Your task to perform on an android device: turn notification dots on Image 0: 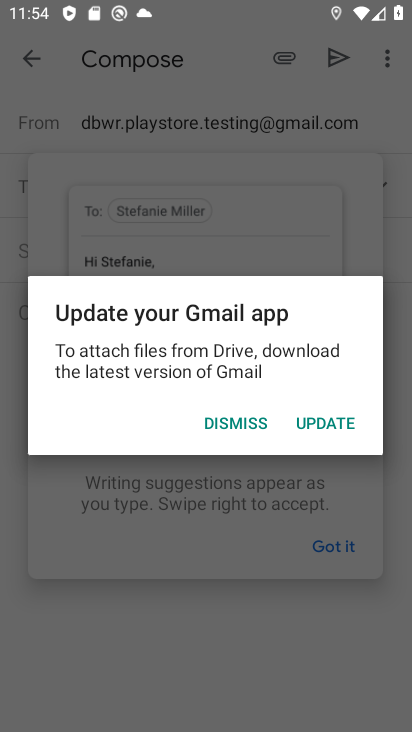
Step 0: press home button
Your task to perform on an android device: turn notification dots on Image 1: 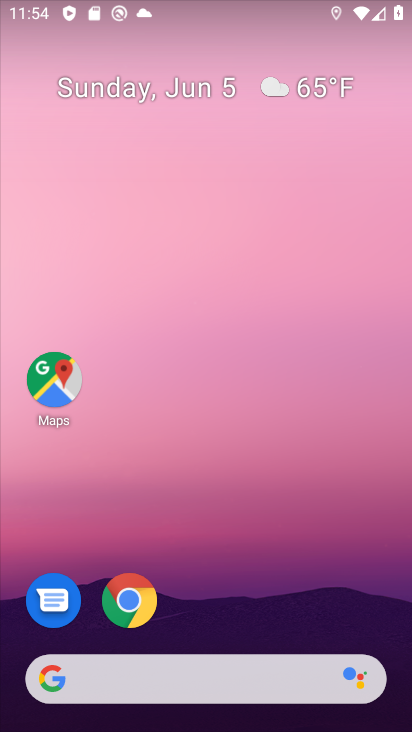
Step 1: drag from (386, 610) to (305, 104)
Your task to perform on an android device: turn notification dots on Image 2: 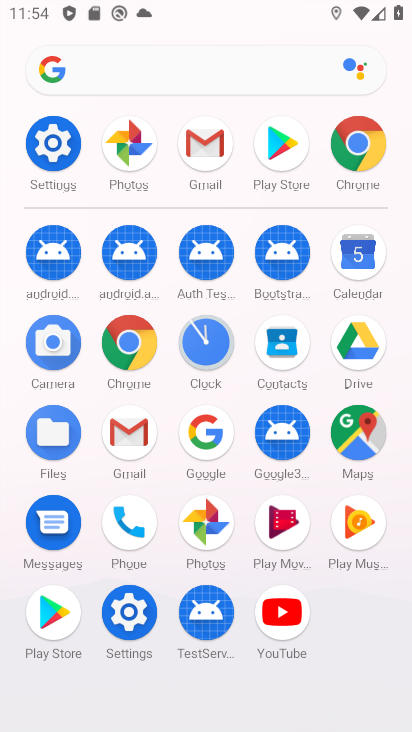
Step 2: click (43, 131)
Your task to perform on an android device: turn notification dots on Image 3: 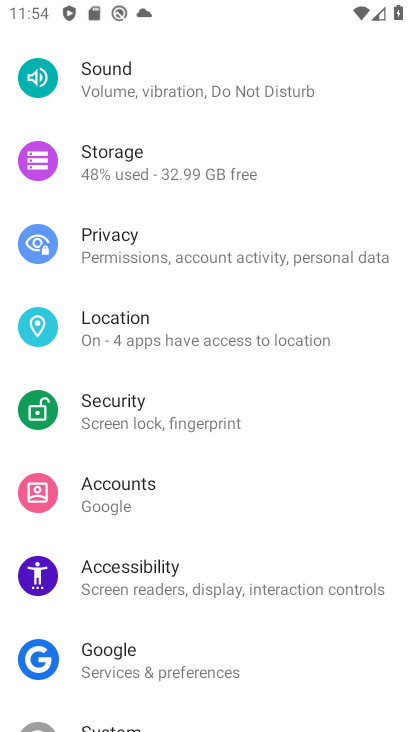
Step 3: drag from (222, 110) to (241, 602)
Your task to perform on an android device: turn notification dots on Image 4: 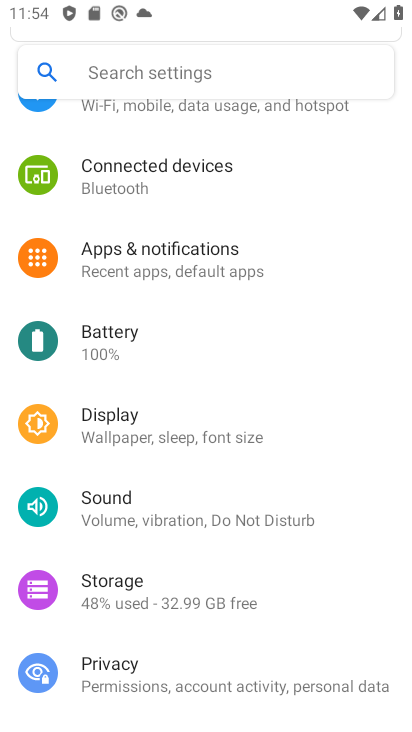
Step 4: click (182, 244)
Your task to perform on an android device: turn notification dots on Image 5: 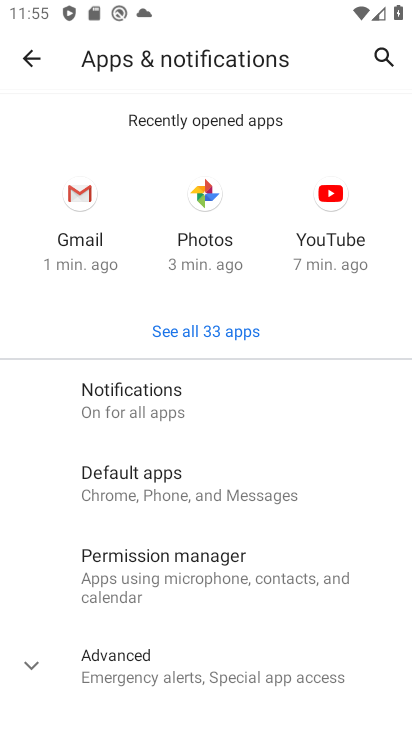
Step 5: click (132, 407)
Your task to perform on an android device: turn notification dots on Image 6: 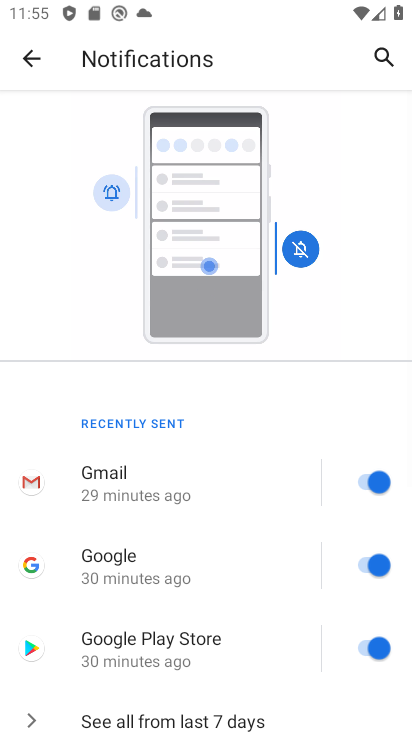
Step 6: drag from (274, 666) to (237, 214)
Your task to perform on an android device: turn notification dots on Image 7: 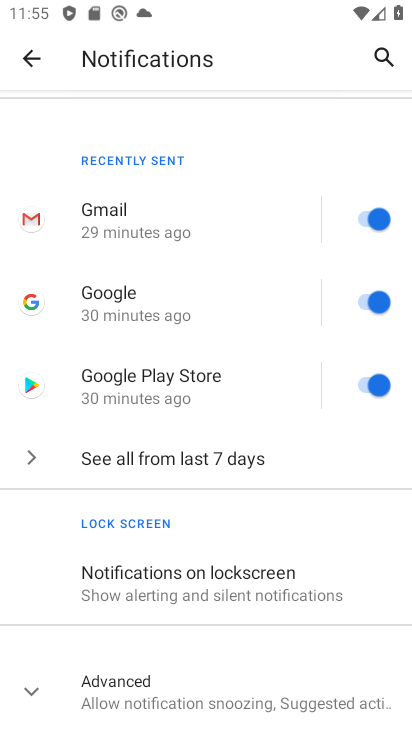
Step 7: click (45, 682)
Your task to perform on an android device: turn notification dots on Image 8: 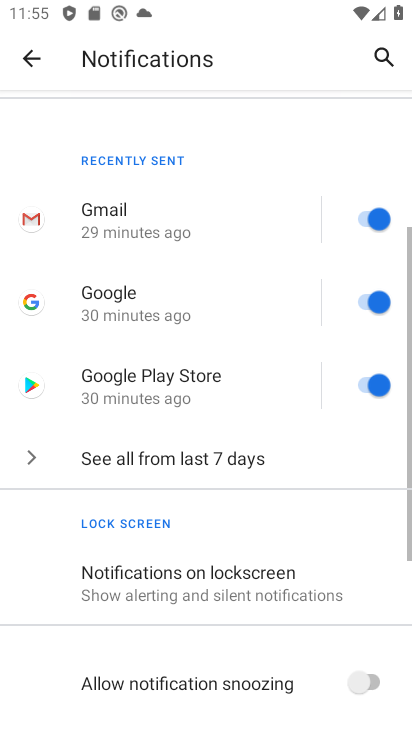
Step 8: drag from (262, 649) to (207, 156)
Your task to perform on an android device: turn notification dots on Image 9: 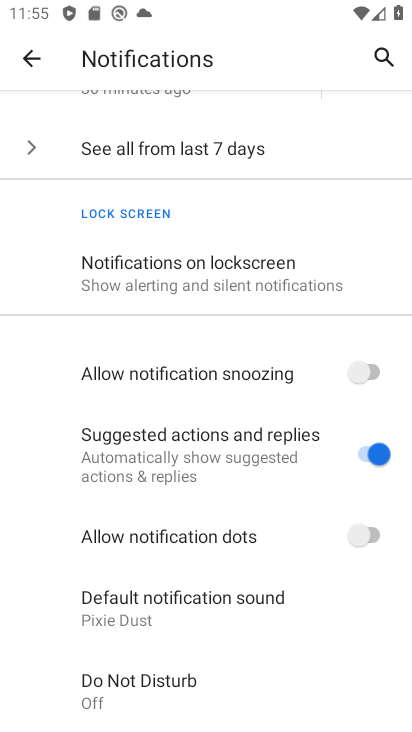
Step 9: click (372, 526)
Your task to perform on an android device: turn notification dots on Image 10: 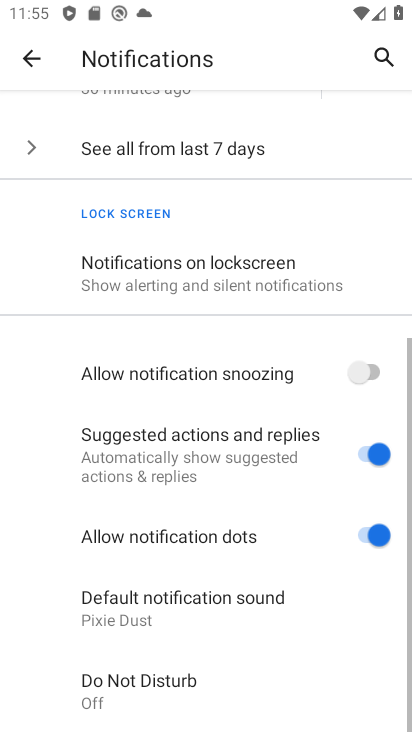
Step 10: task complete